Your task to perform on an android device: add a contact Image 0: 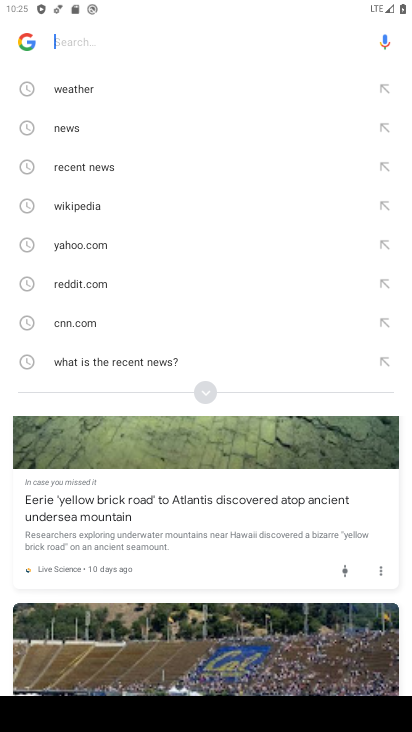
Step 0: press home button
Your task to perform on an android device: add a contact Image 1: 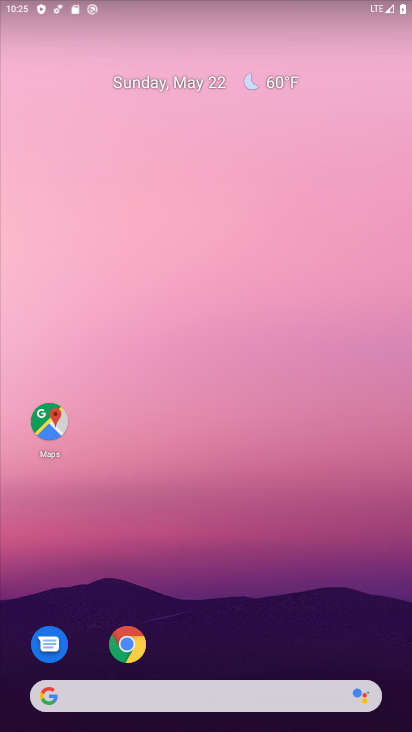
Step 1: drag from (198, 620) to (212, 180)
Your task to perform on an android device: add a contact Image 2: 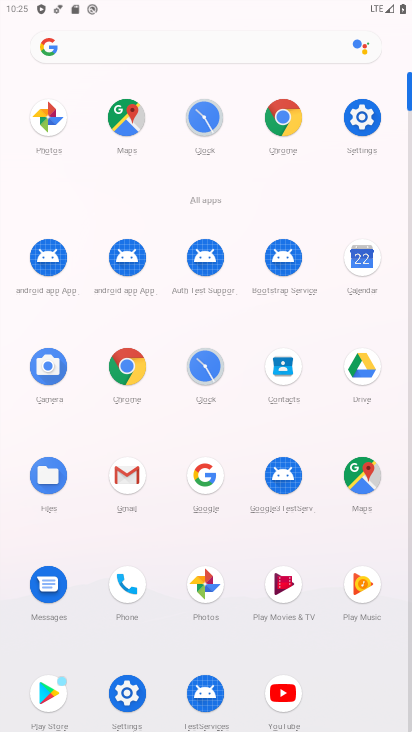
Step 2: click (291, 375)
Your task to perform on an android device: add a contact Image 3: 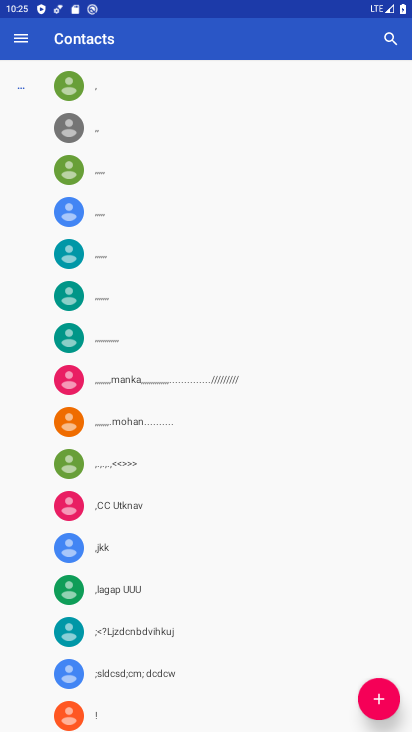
Step 3: click (382, 704)
Your task to perform on an android device: add a contact Image 4: 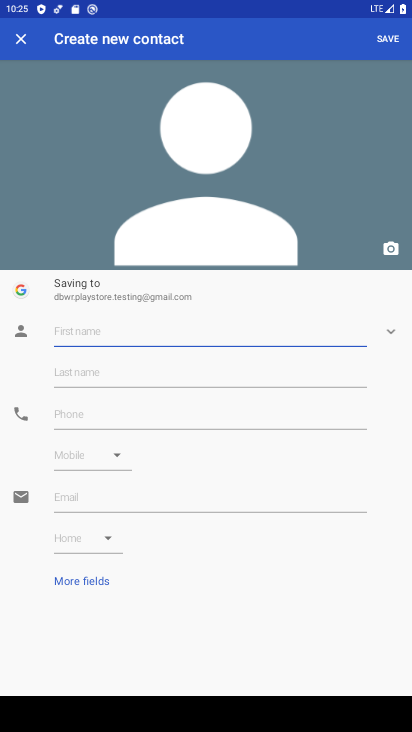
Step 4: click (200, 323)
Your task to perform on an android device: add a contact Image 5: 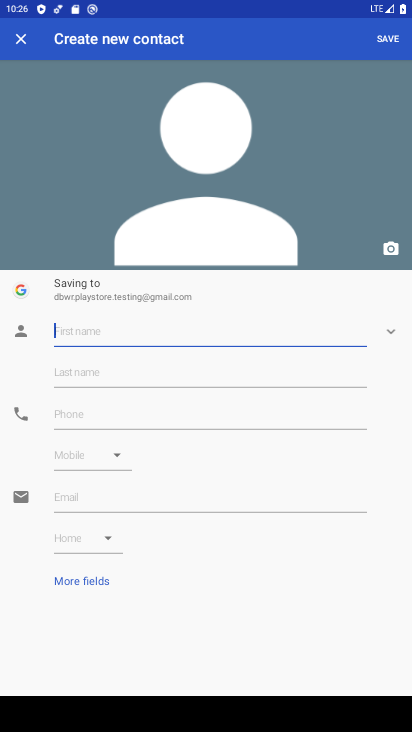
Step 5: type "naveen"
Your task to perform on an android device: add a contact Image 6: 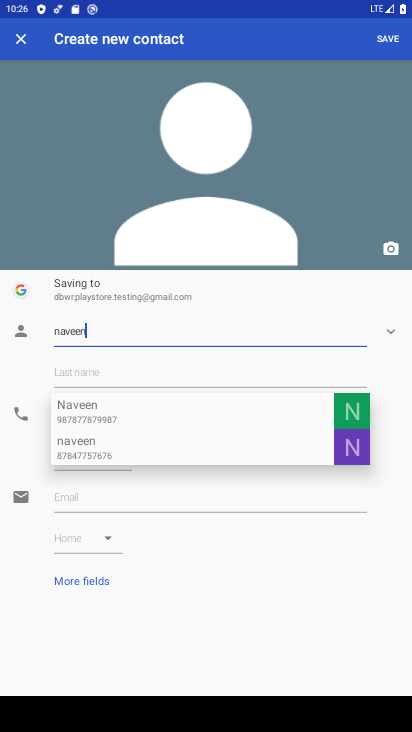
Step 6: click (178, 378)
Your task to perform on an android device: add a contact Image 7: 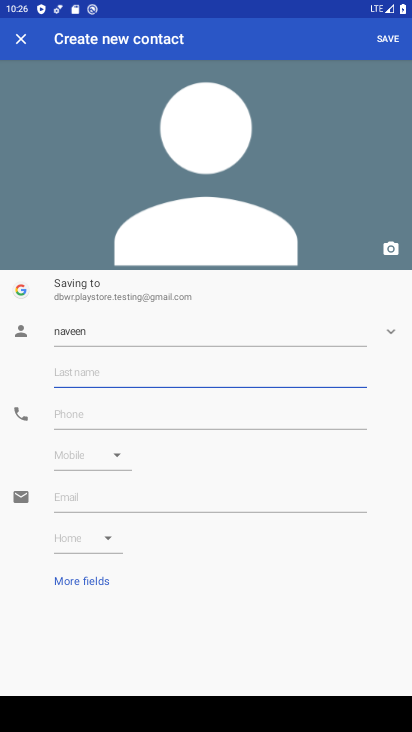
Step 7: type "mishra"
Your task to perform on an android device: add a contact Image 8: 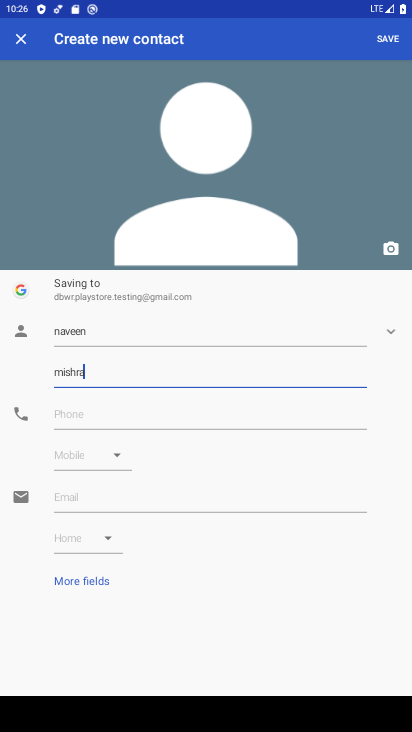
Step 8: click (127, 418)
Your task to perform on an android device: add a contact Image 9: 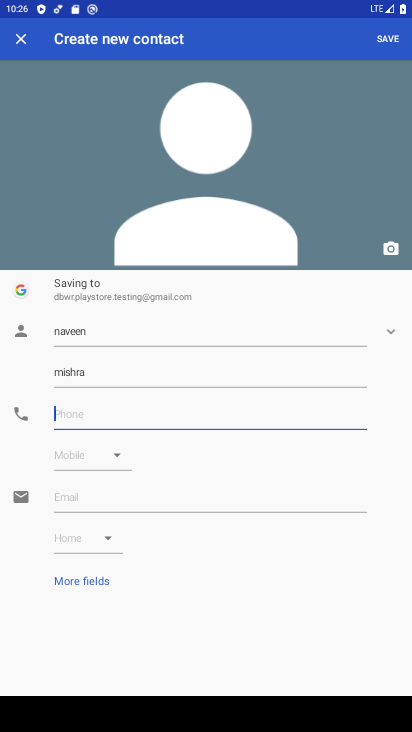
Step 9: type "9090090990"
Your task to perform on an android device: add a contact Image 10: 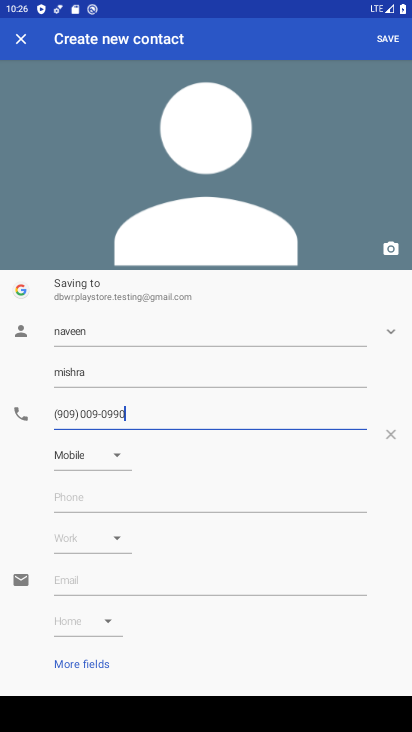
Step 10: click (390, 44)
Your task to perform on an android device: add a contact Image 11: 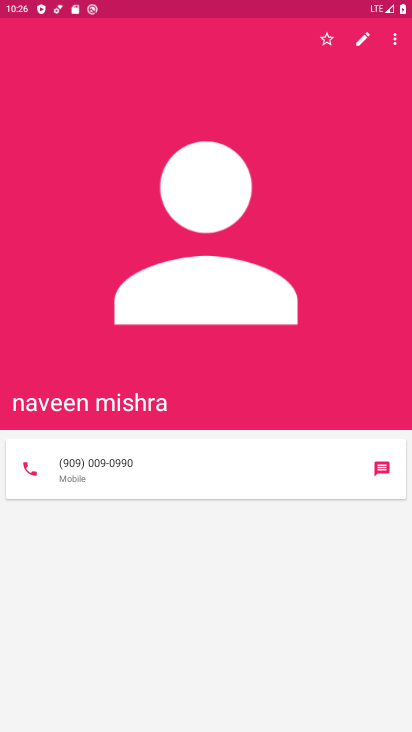
Step 11: task complete